Your task to perform on an android device: open app "Adobe Acrobat Reader" Image 0: 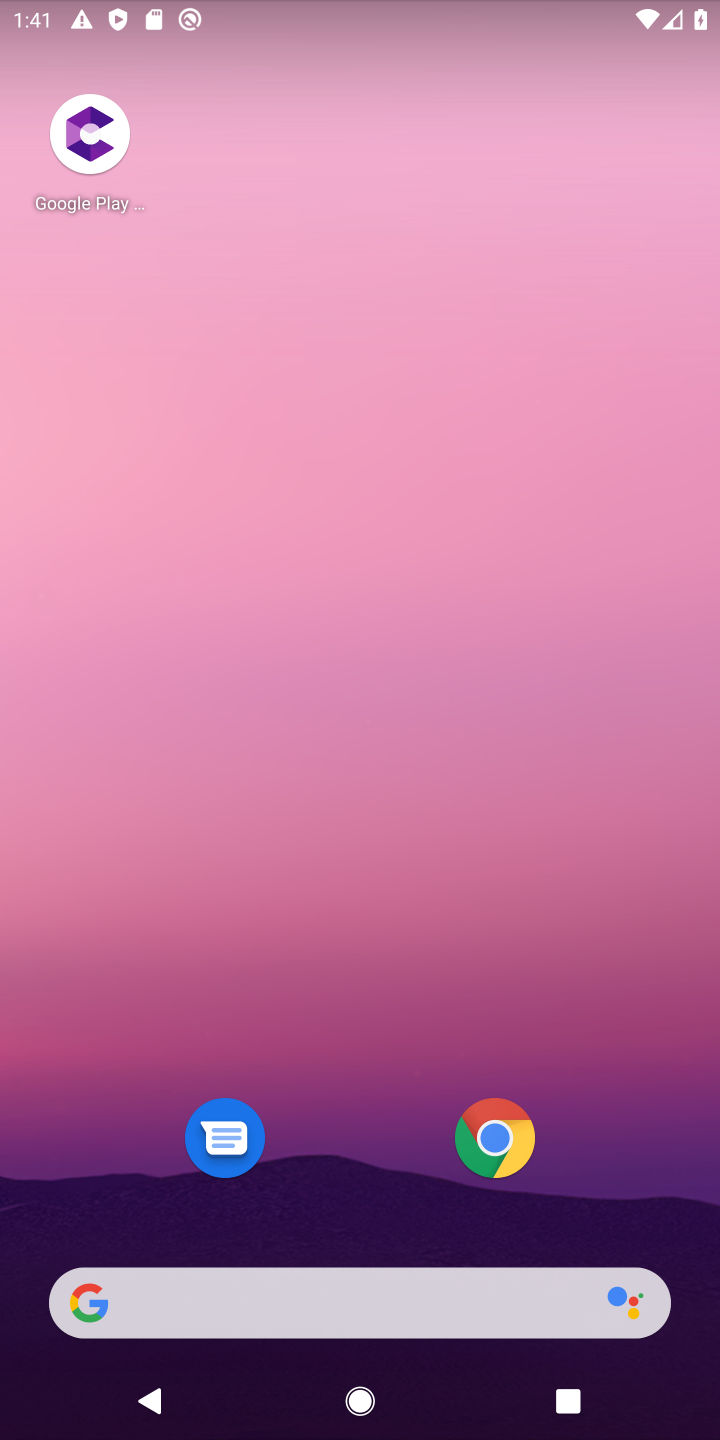
Step 0: drag from (370, 1253) to (389, 69)
Your task to perform on an android device: open app "Adobe Acrobat Reader" Image 1: 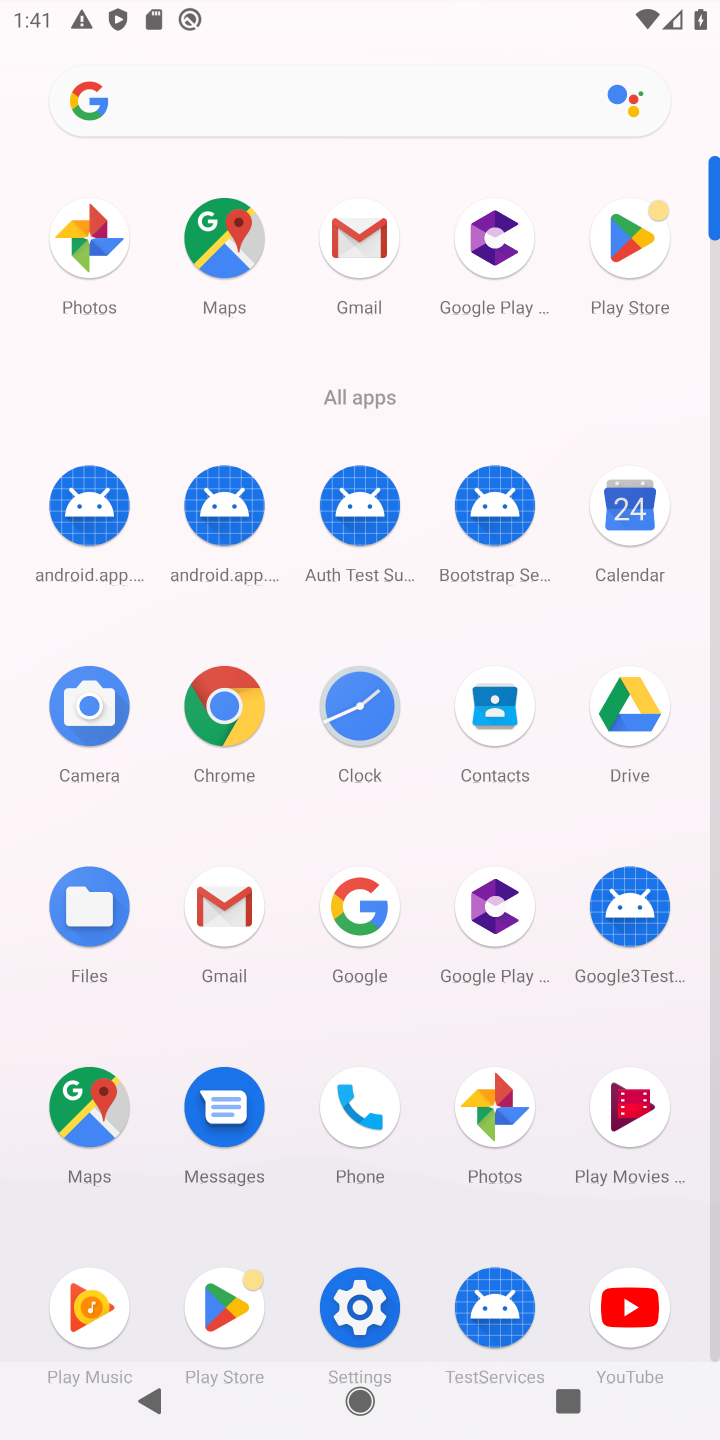
Step 1: click (629, 247)
Your task to perform on an android device: open app "Adobe Acrobat Reader" Image 2: 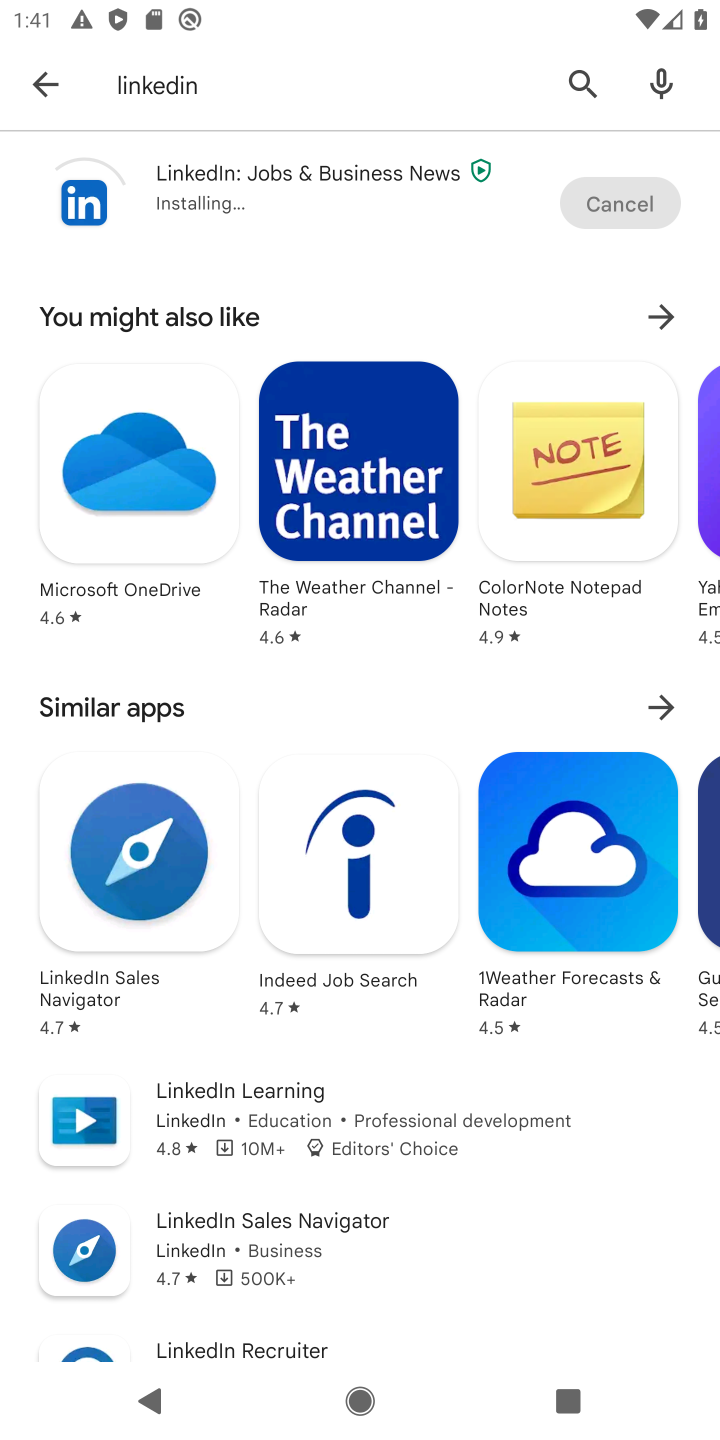
Step 2: click (586, 75)
Your task to perform on an android device: open app "Adobe Acrobat Reader" Image 3: 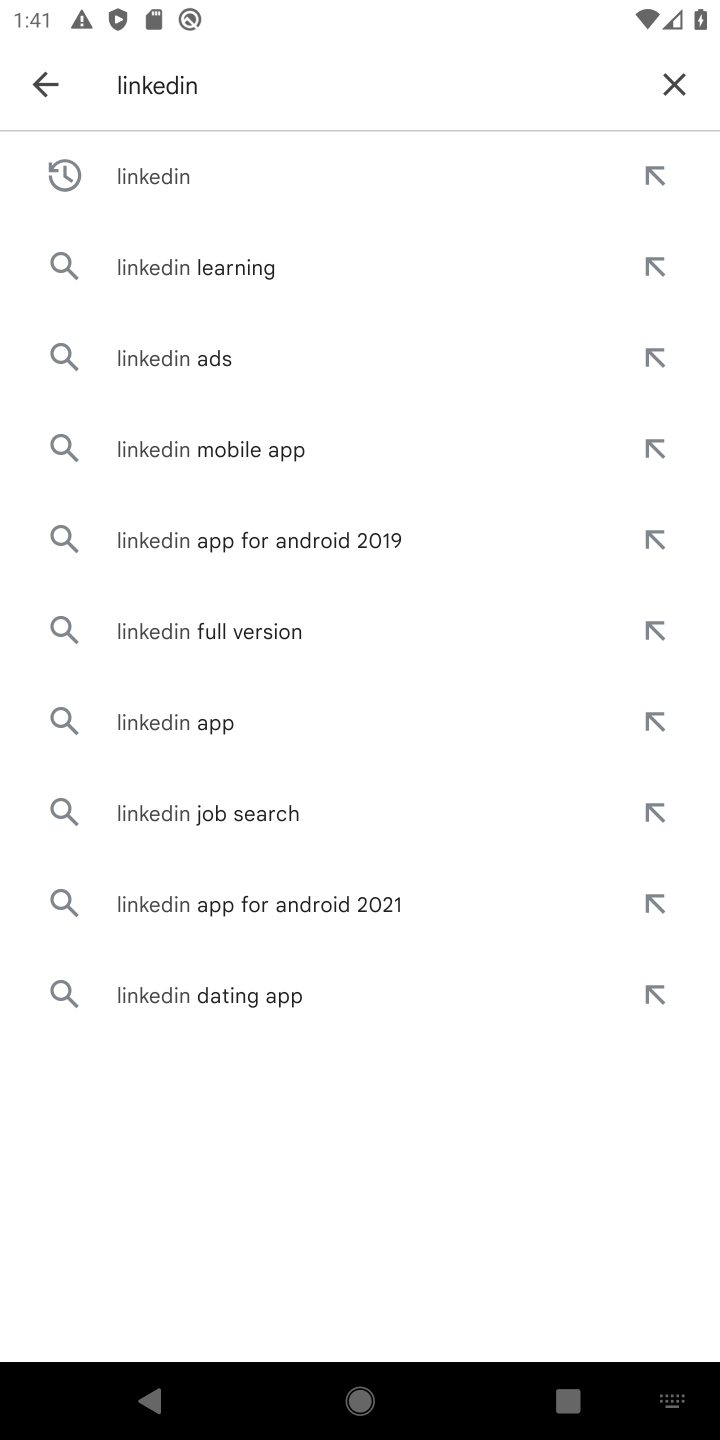
Step 3: click (676, 76)
Your task to perform on an android device: open app "Adobe Acrobat Reader" Image 4: 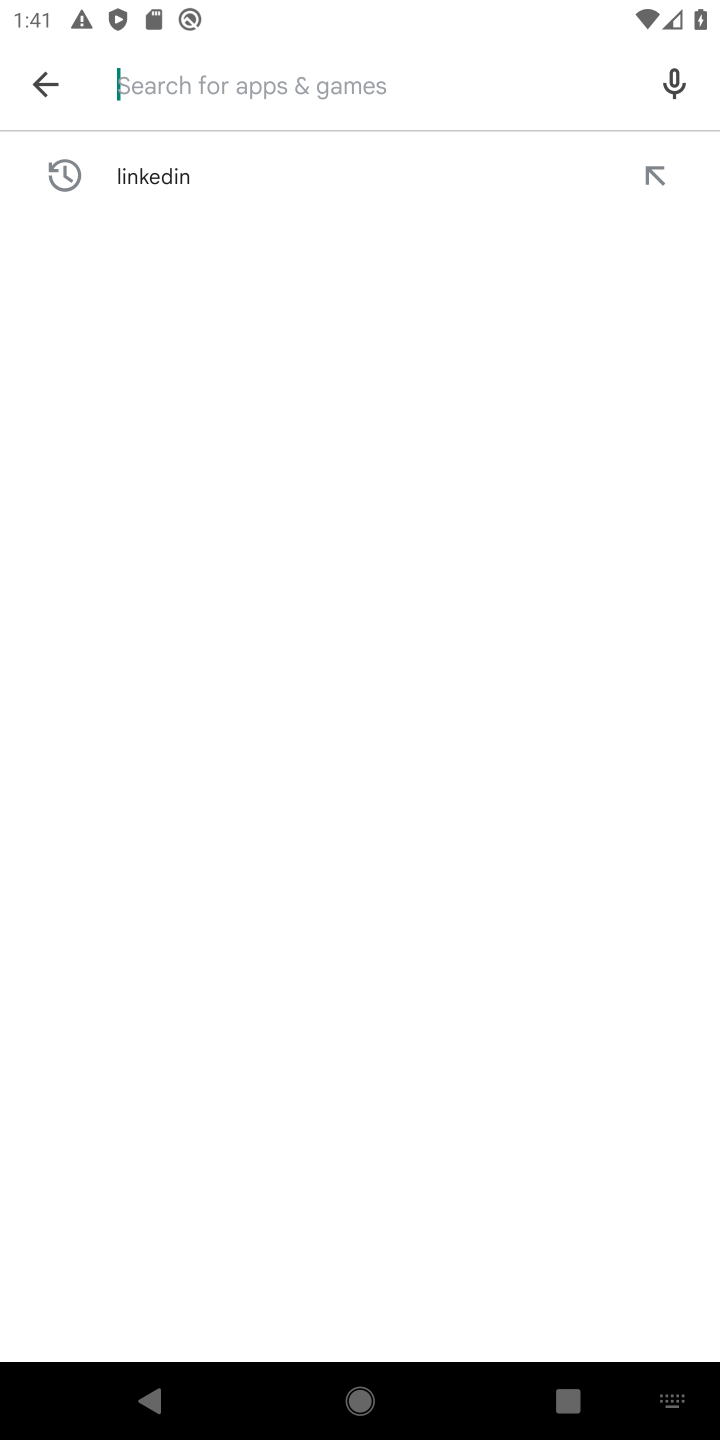
Step 4: type "Adobe Acrobat Reader"
Your task to perform on an android device: open app "Adobe Acrobat Reader" Image 5: 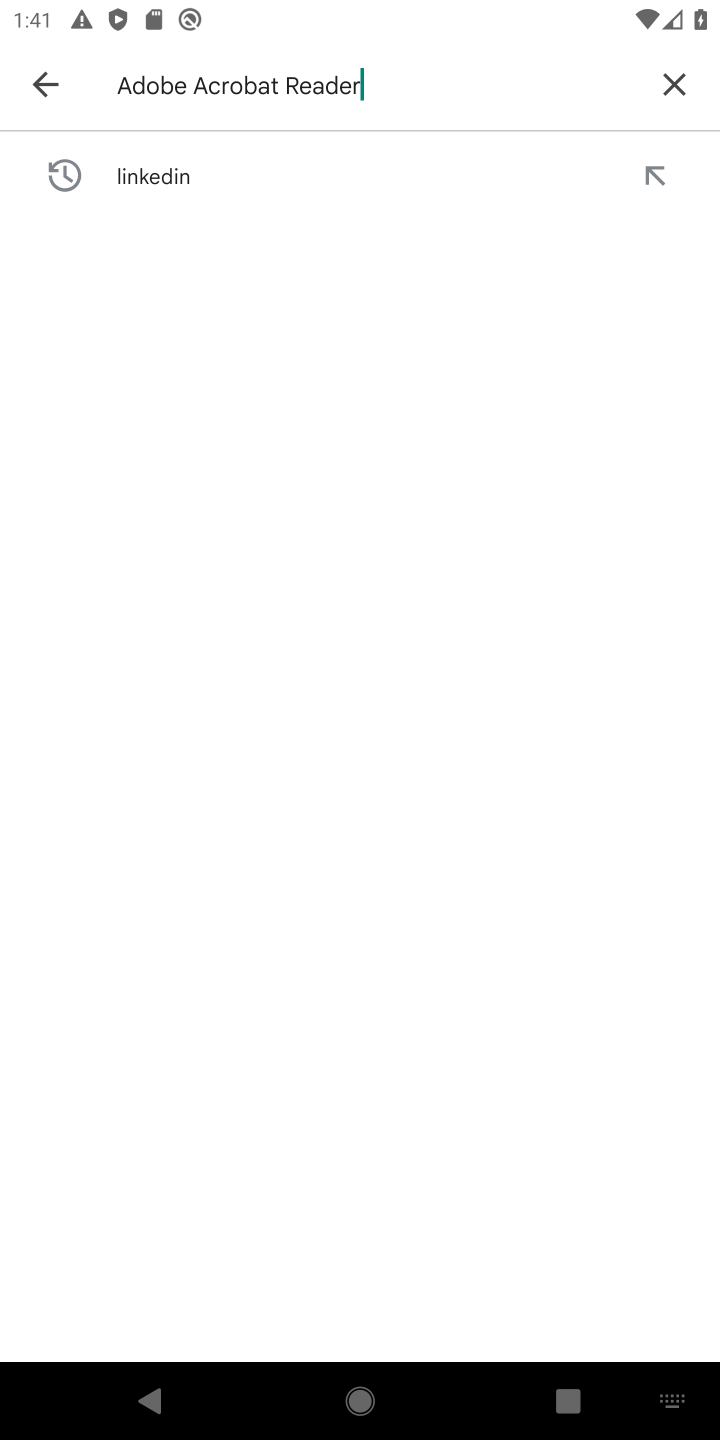
Step 5: type ""
Your task to perform on an android device: open app "Adobe Acrobat Reader" Image 6: 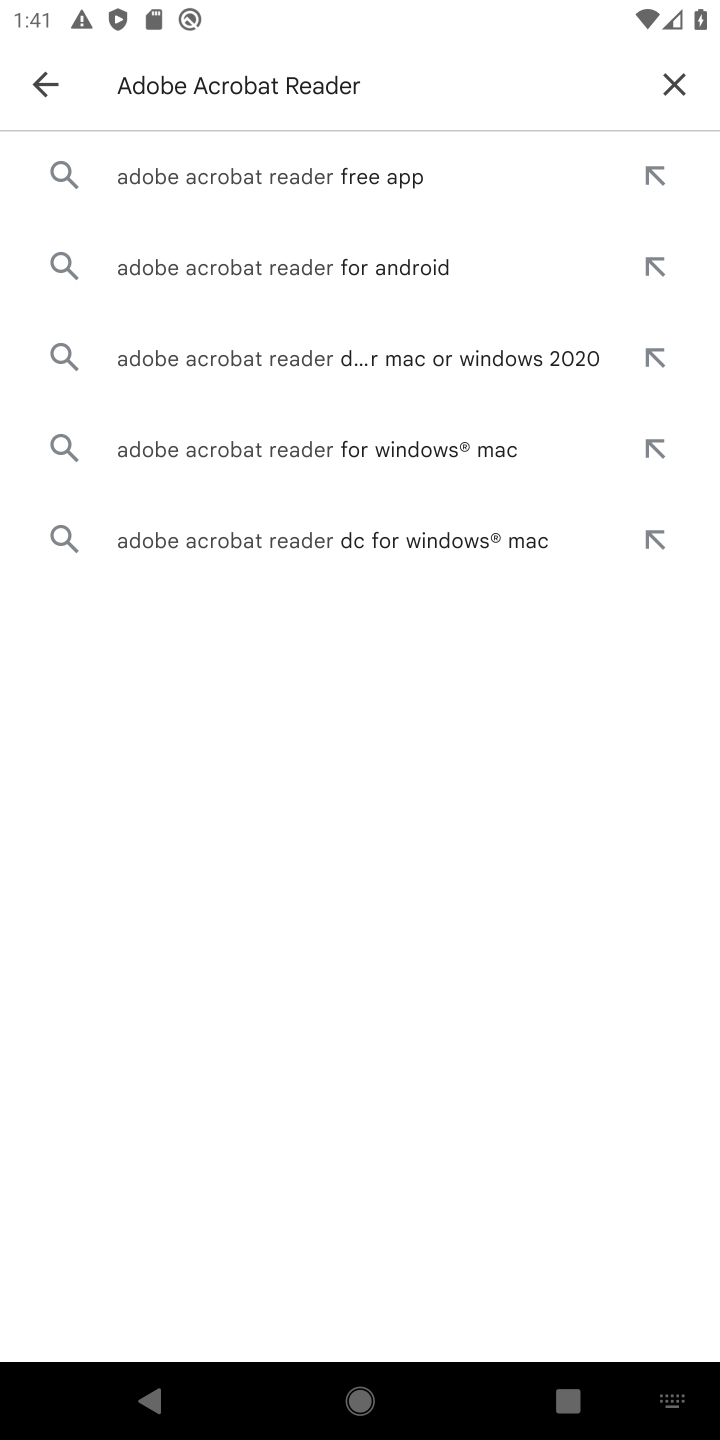
Step 6: click (253, 174)
Your task to perform on an android device: open app "Adobe Acrobat Reader" Image 7: 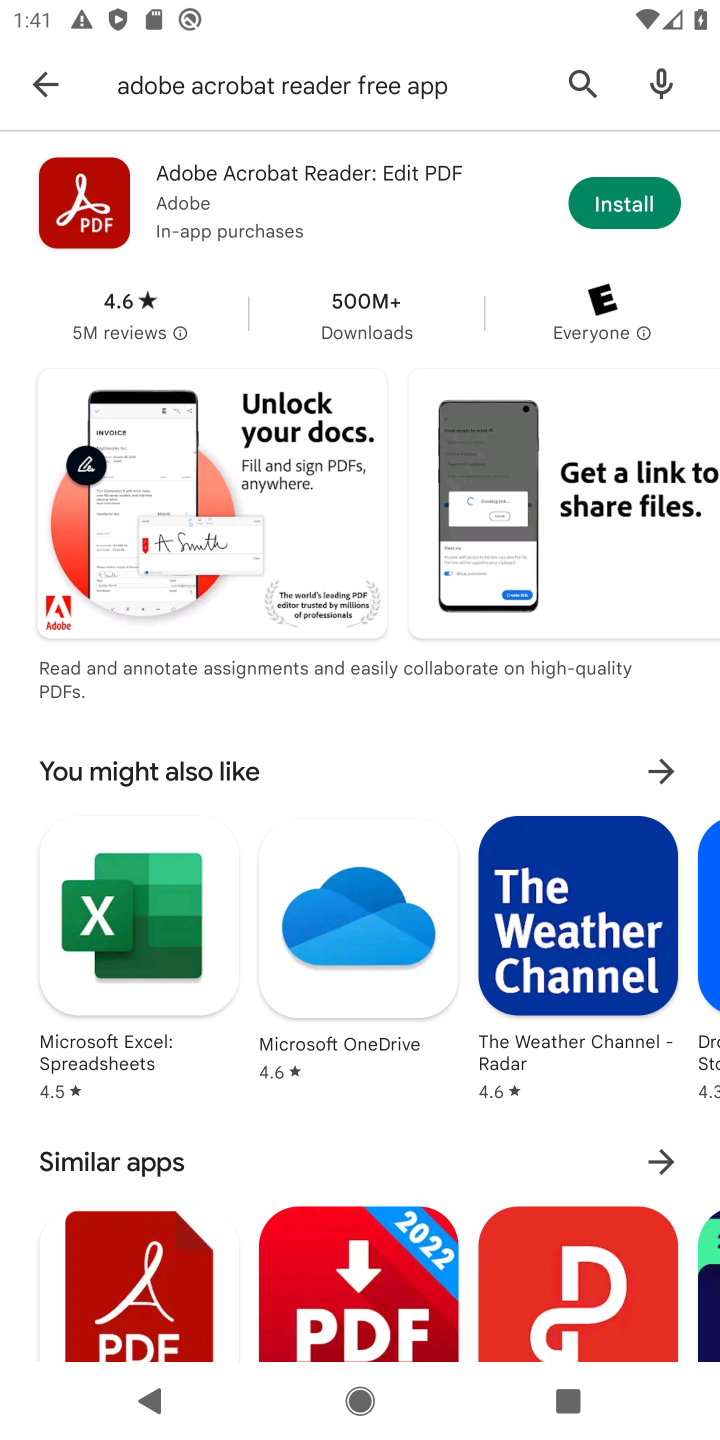
Step 7: task complete